Your task to perform on an android device: Open location settings Image 0: 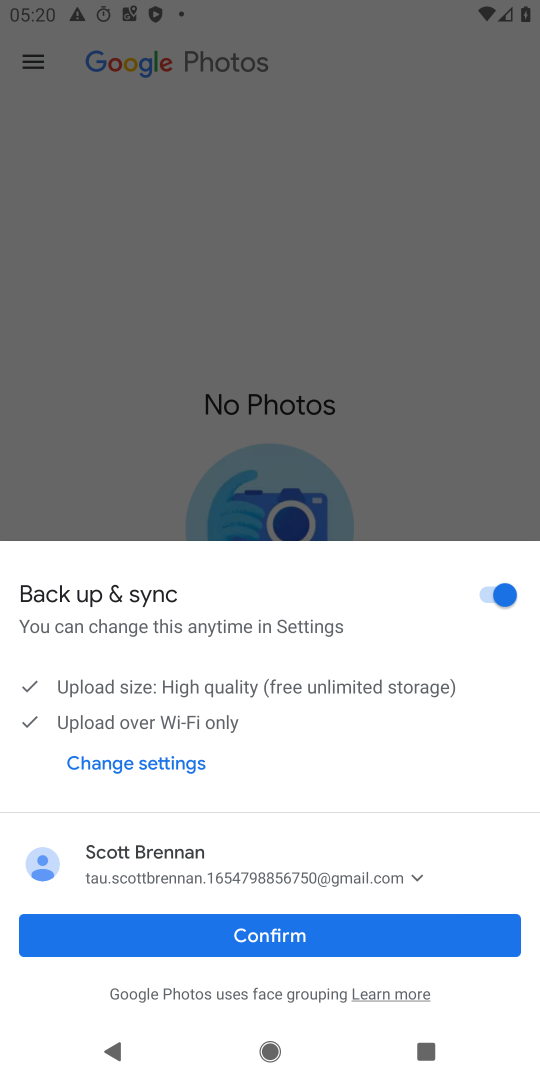
Step 0: press home button
Your task to perform on an android device: Open location settings Image 1: 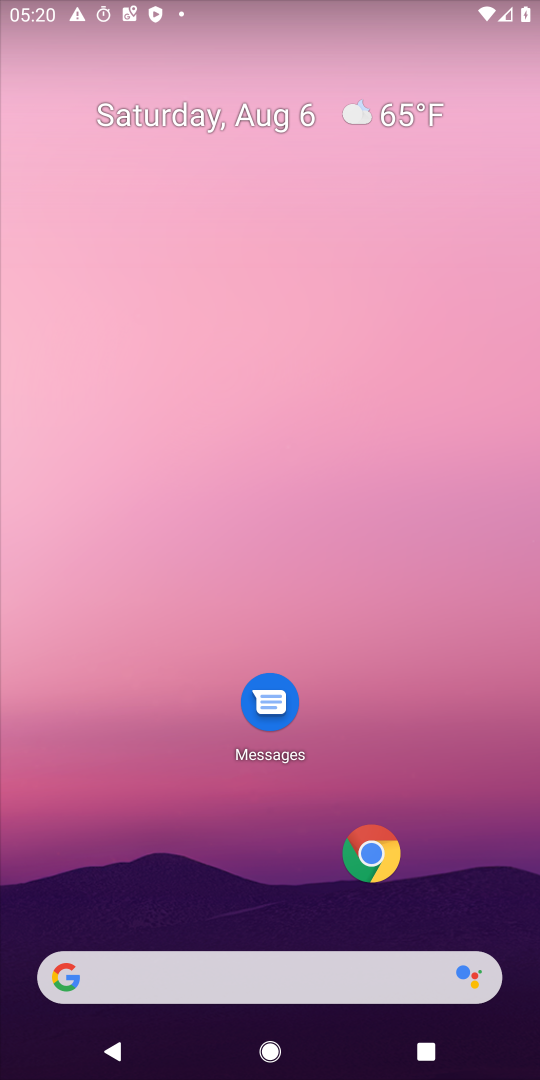
Step 1: drag from (206, 842) to (240, 0)
Your task to perform on an android device: Open location settings Image 2: 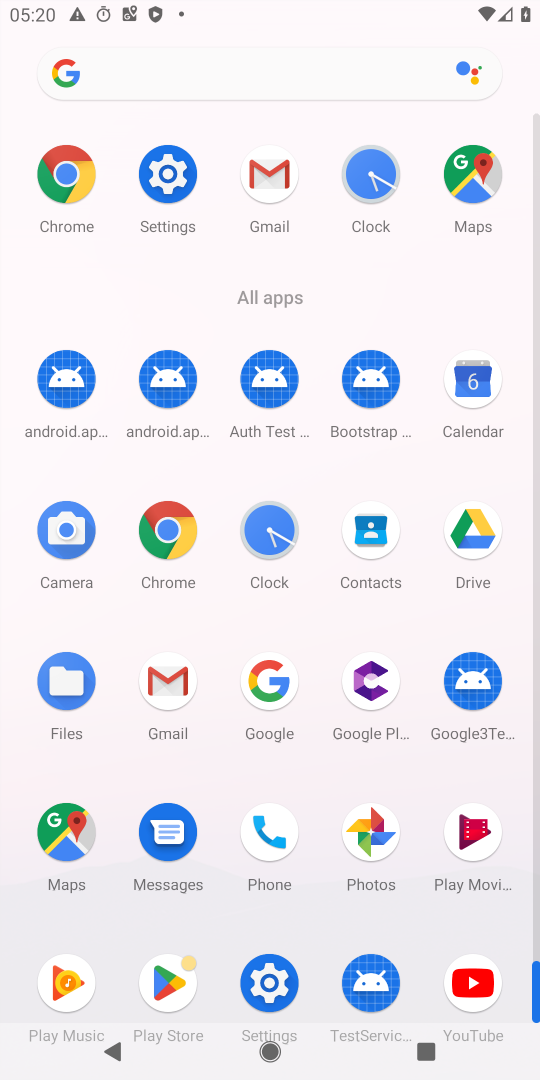
Step 2: click (189, 175)
Your task to perform on an android device: Open location settings Image 3: 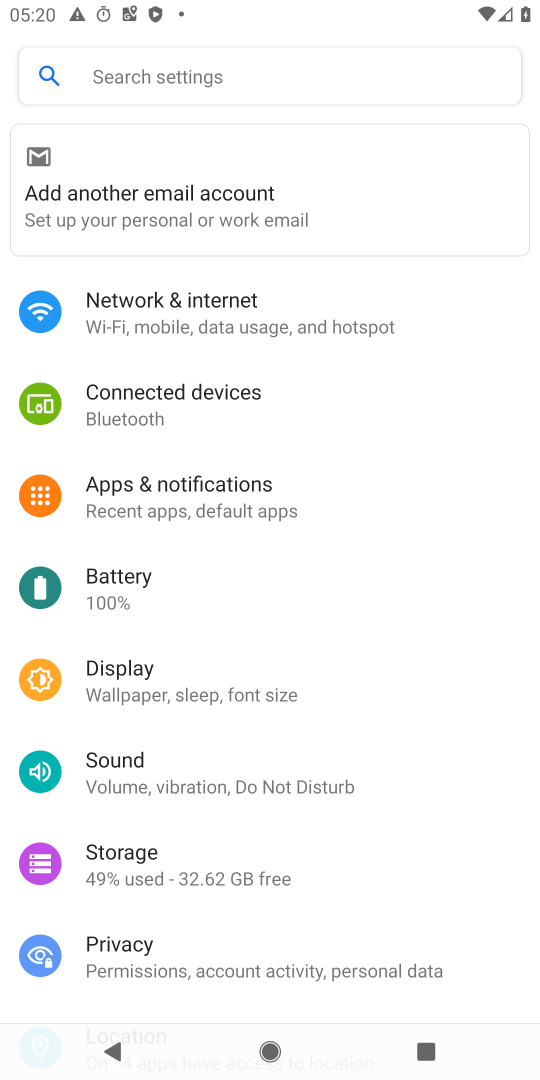
Step 3: drag from (190, 912) to (176, 442)
Your task to perform on an android device: Open location settings Image 4: 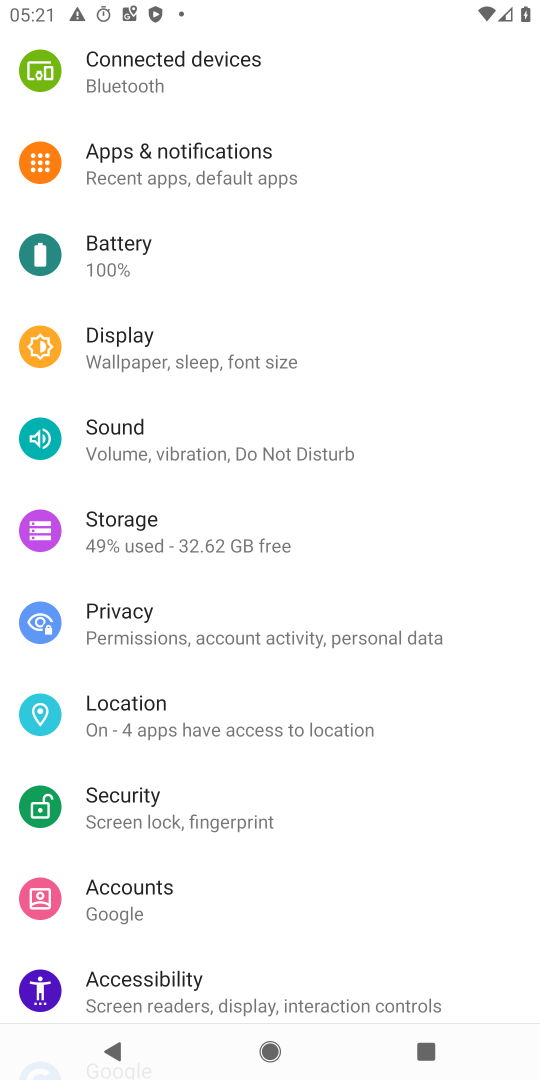
Step 4: click (129, 729)
Your task to perform on an android device: Open location settings Image 5: 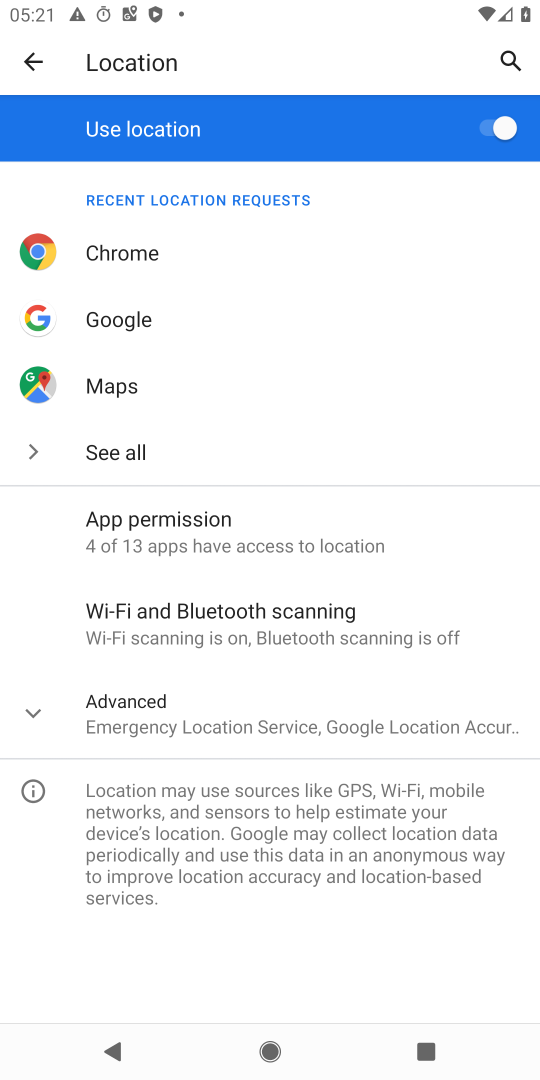
Step 5: task complete